Your task to perform on an android device: Search for Mexican restaurants on Maps Image 0: 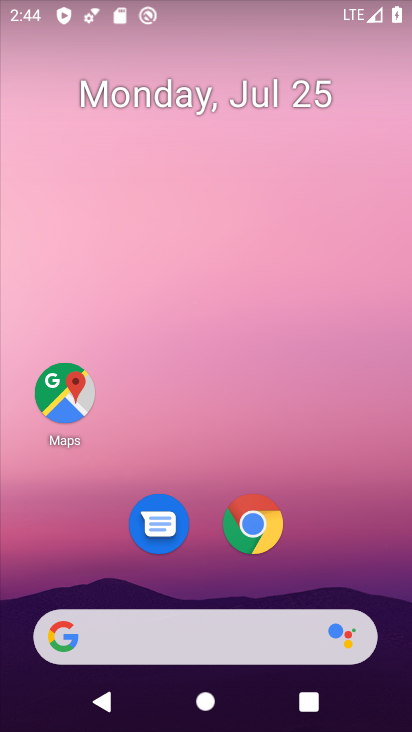
Step 0: click (71, 390)
Your task to perform on an android device: Search for Mexican restaurants on Maps Image 1: 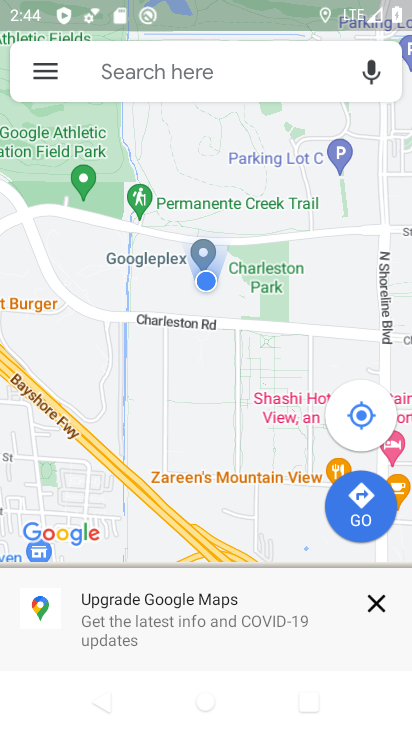
Step 1: click (181, 56)
Your task to perform on an android device: Search for Mexican restaurants on Maps Image 2: 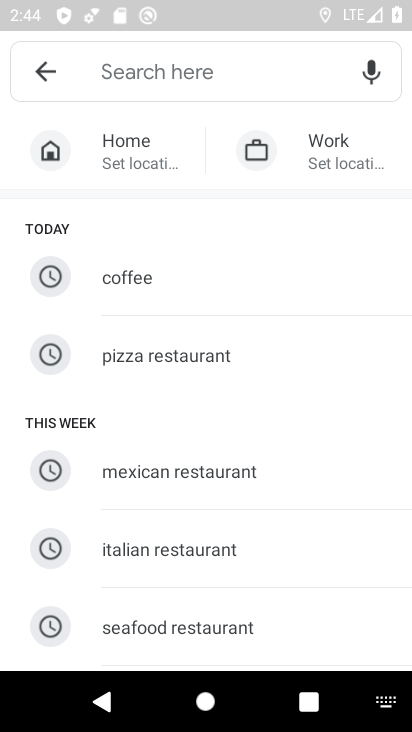
Step 2: click (145, 462)
Your task to perform on an android device: Search for Mexican restaurants on Maps Image 3: 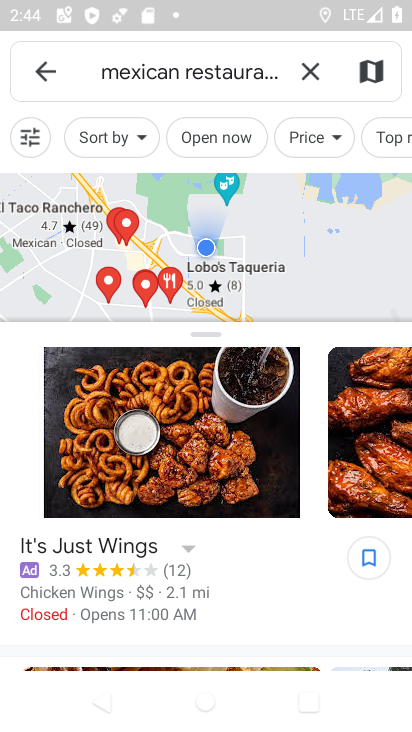
Step 3: task complete